Your task to perform on an android device: Open Youtube and go to the subscriptions tab Image 0: 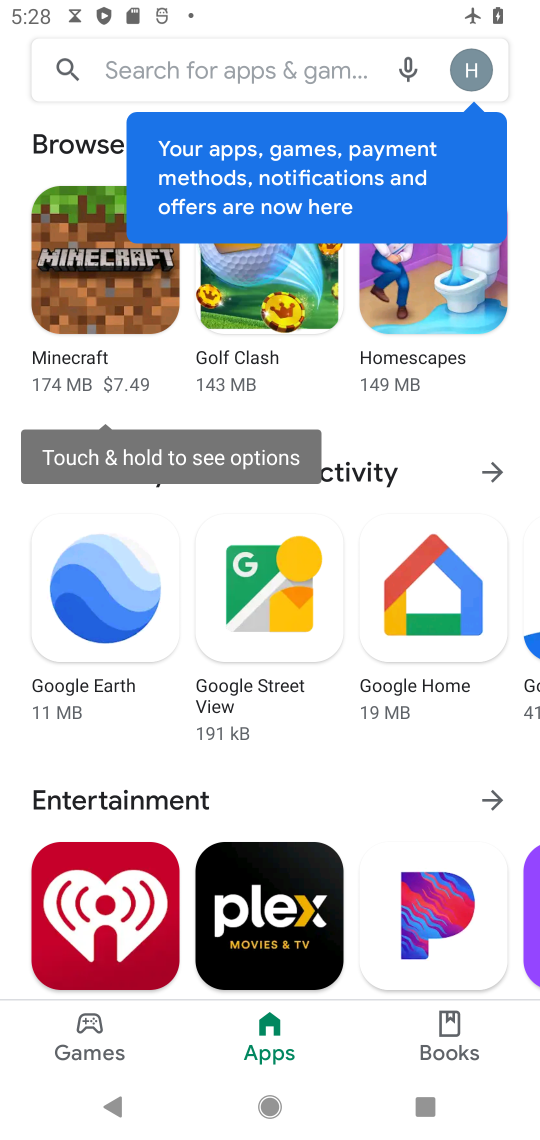
Step 0: press home button
Your task to perform on an android device: Open Youtube and go to the subscriptions tab Image 1: 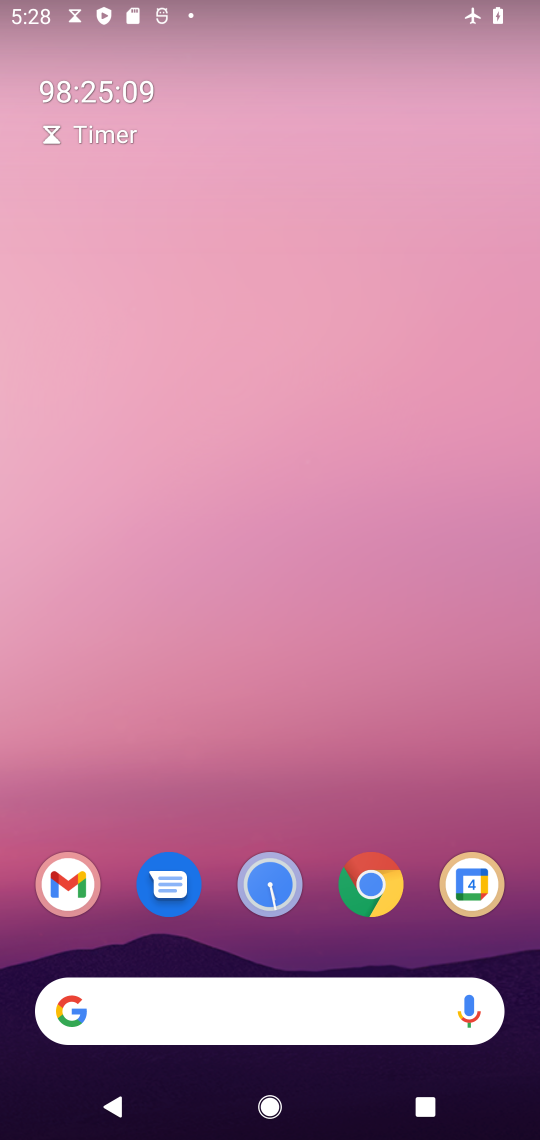
Step 1: drag from (242, 947) to (250, 179)
Your task to perform on an android device: Open Youtube and go to the subscriptions tab Image 2: 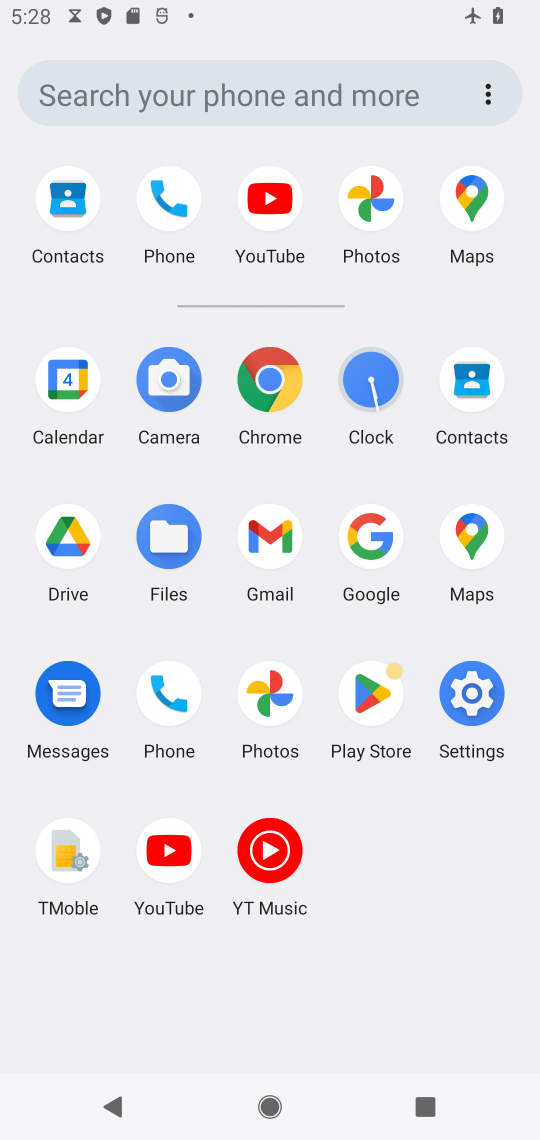
Step 2: click (169, 838)
Your task to perform on an android device: Open Youtube and go to the subscriptions tab Image 3: 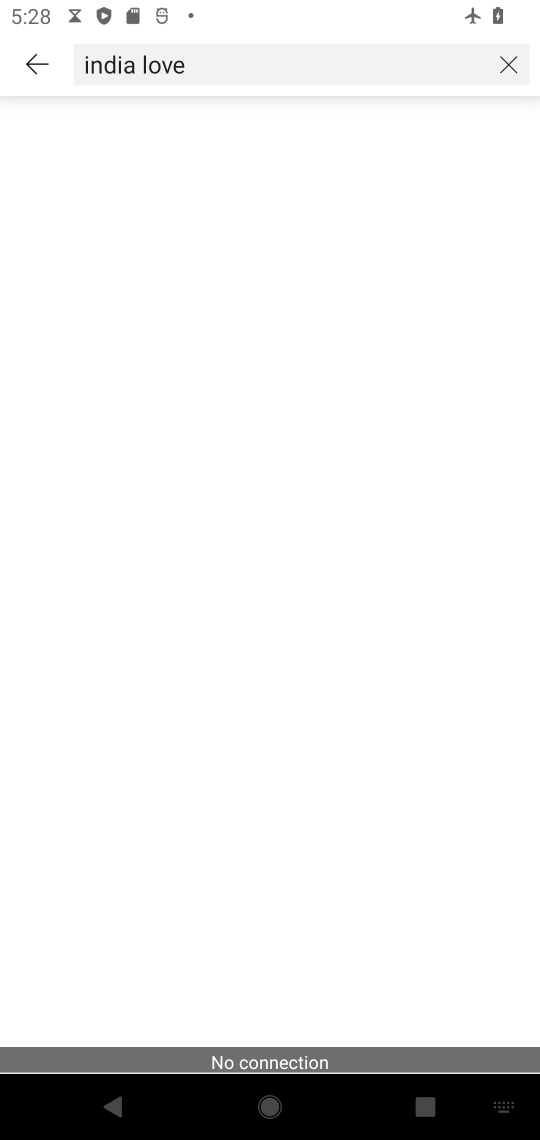
Step 3: click (35, 51)
Your task to perform on an android device: Open Youtube and go to the subscriptions tab Image 4: 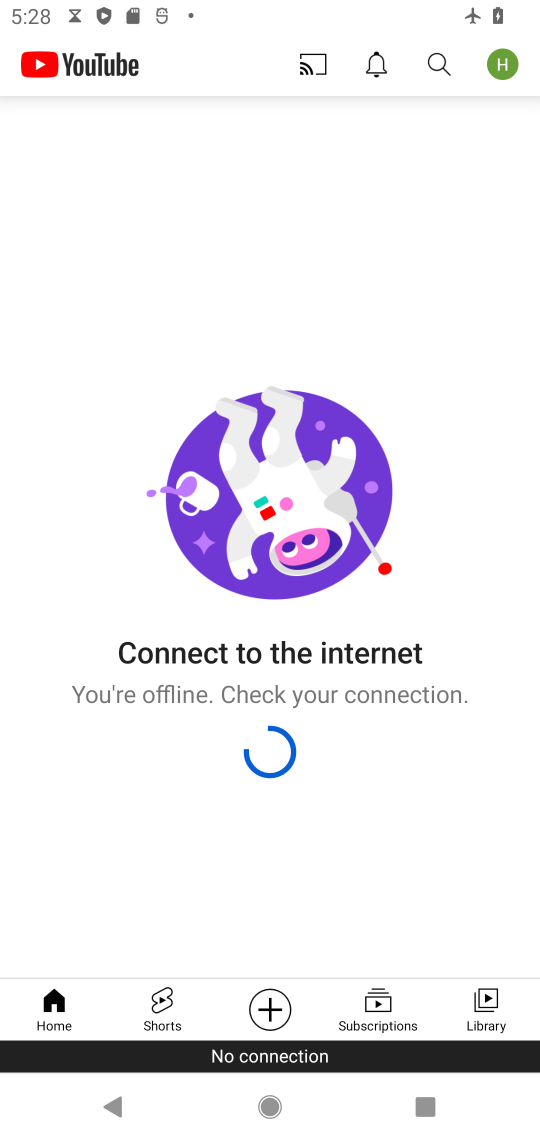
Step 4: click (388, 1002)
Your task to perform on an android device: Open Youtube and go to the subscriptions tab Image 5: 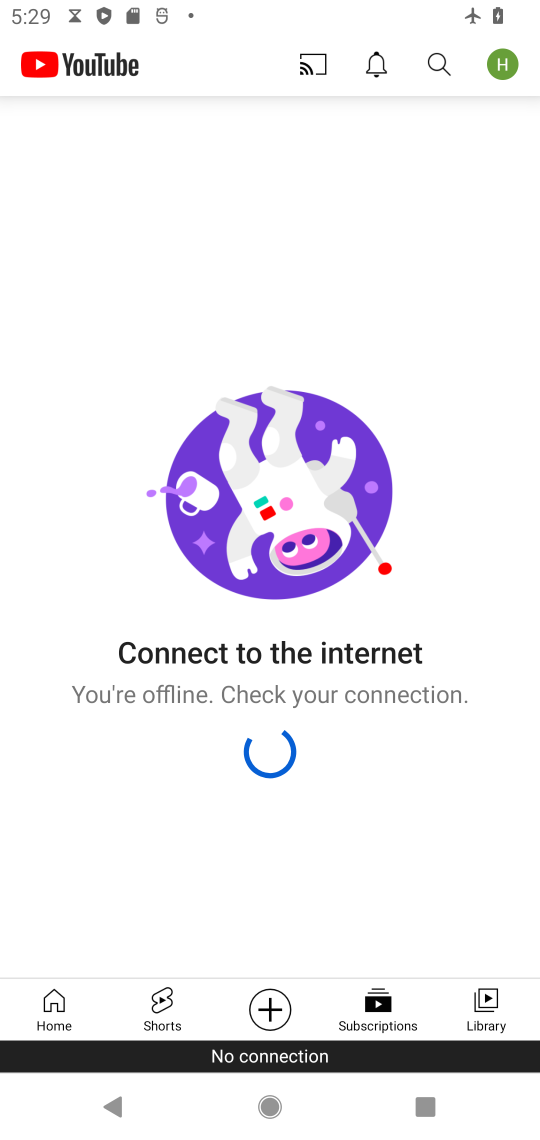
Step 5: task complete